Your task to perform on an android device: change the upload size in google photos Image 0: 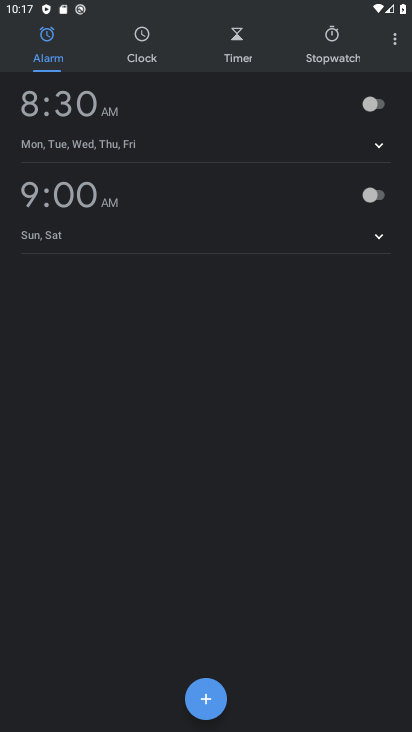
Step 0: press home button
Your task to perform on an android device: change the upload size in google photos Image 1: 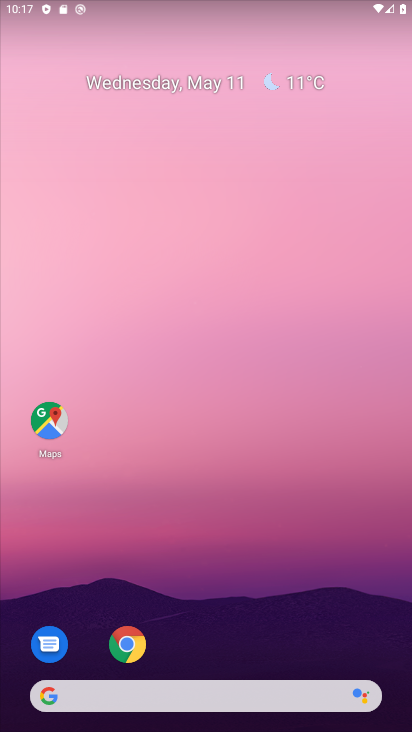
Step 1: drag from (330, 392) to (394, 34)
Your task to perform on an android device: change the upload size in google photos Image 2: 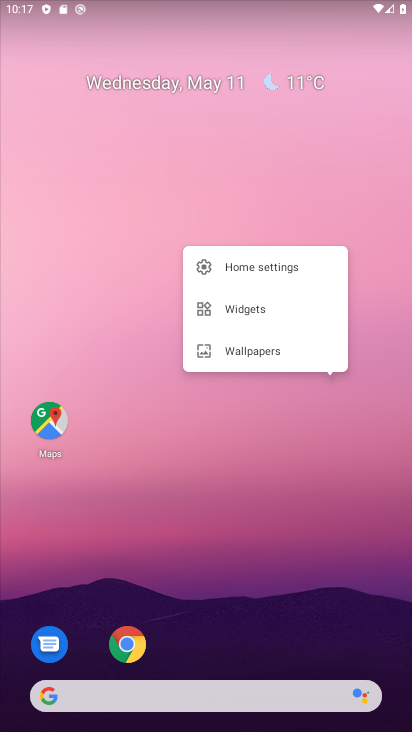
Step 2: drag from (349, 321) to (371, 11)
Your task to perform on an android device: change the upload size in google photos Image 3: 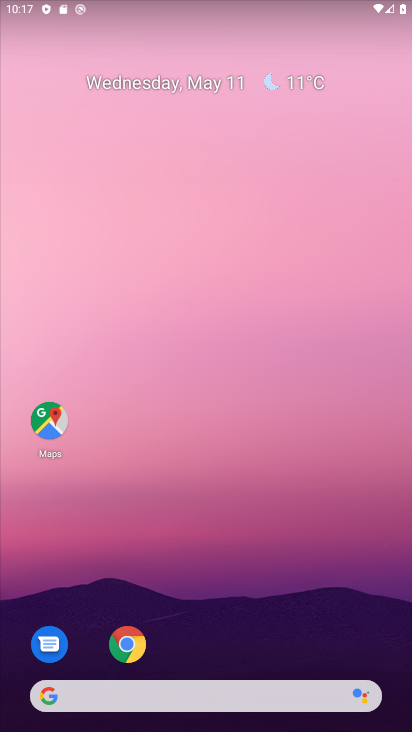
Step 3: drag from (277, 598) to (299, 14)
Your task to perform on an android device: change the upload size in google photos Image 4: 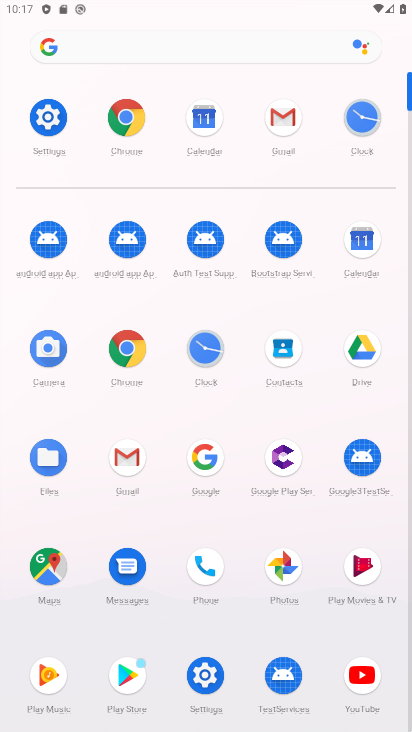
Step 4: click (275, 569)
Your task to perform on an android device: change the upload size in google photos Image 5: 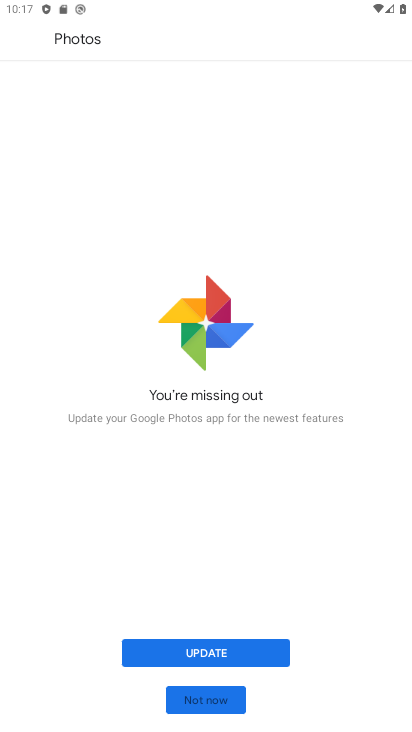
Step 5: click (188, 700)
Your task to perform on an android device: change the upload size in google photos Image 6: 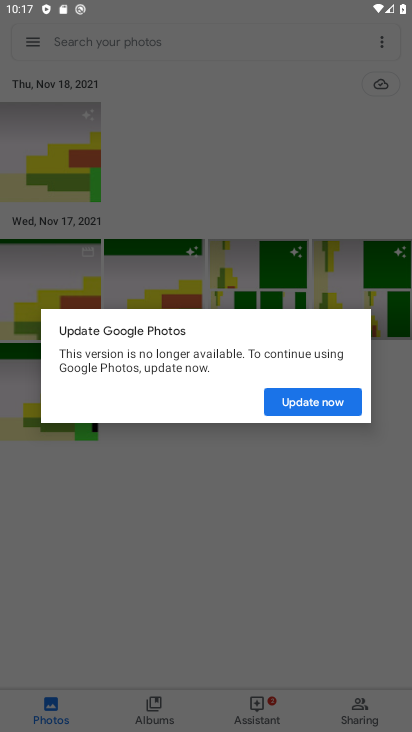
Step 6: click (296, 408)
Your task to perform on an android device: change the upload size in google photos Image 7: 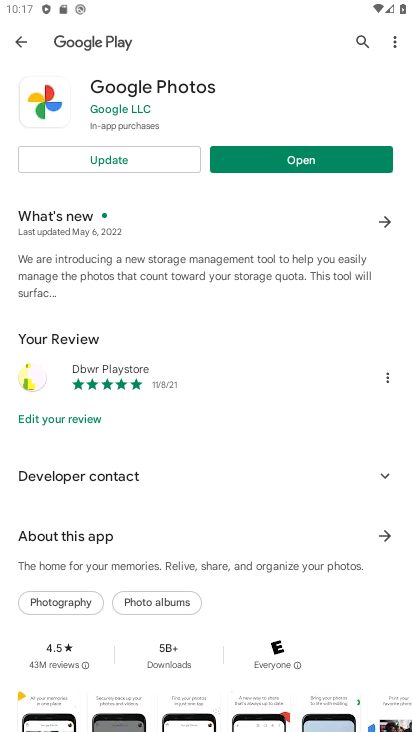
Step 7: click (298, 159)
Your task to perform on an android device: change the upload size in google photos Image 8: 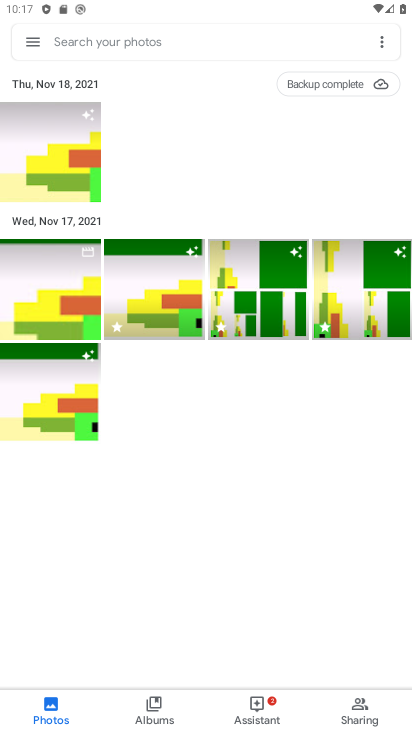
Step 8: click (31, 41)
Your task to perform on an android device: change the upload size in google photos Image 9: 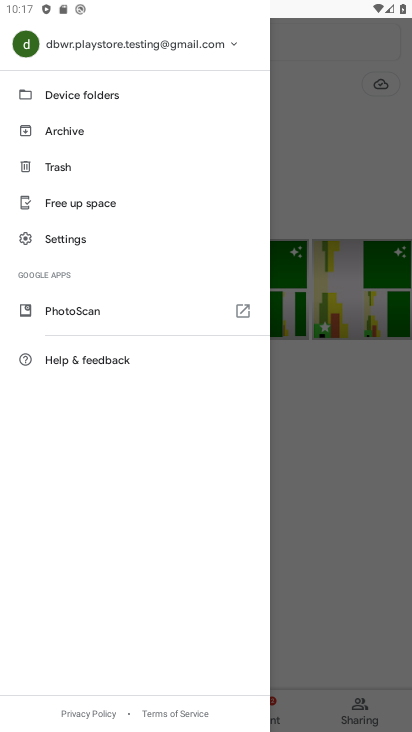
Step 9: click (60, 235)
Your task to perform on an android device: change the upload size in google photos Image 10: 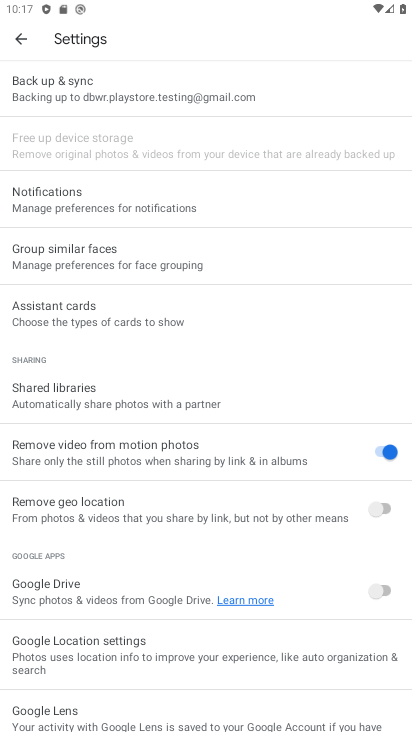
Step 10: click (80, 91)
Your task to perform on an android device: change the upload size in google photos Image 11: 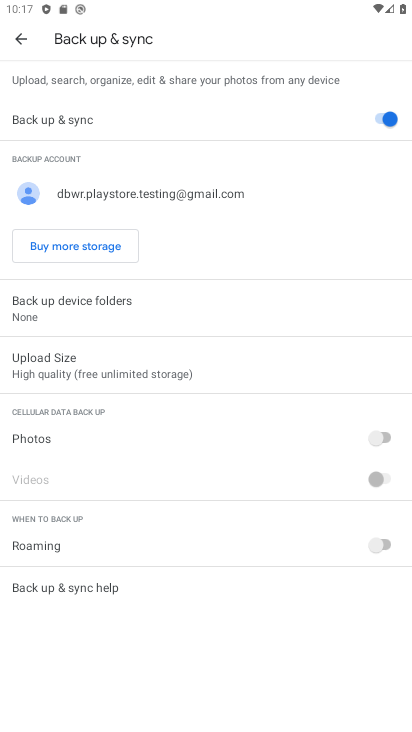
Step 11: click (40, 366)
Your task to perform on an android device: change the upload size in google photos Image 12: 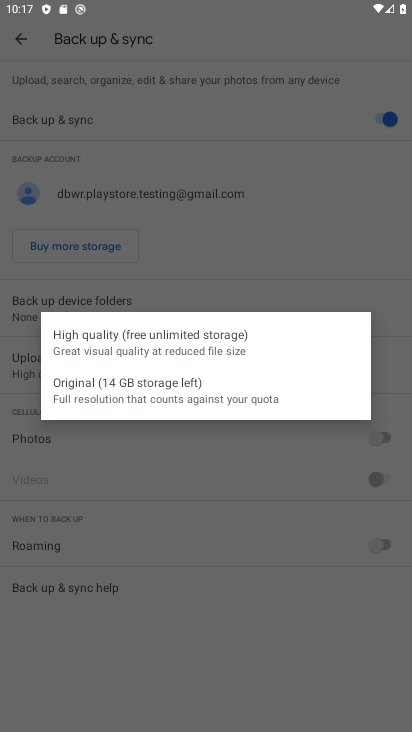
Step 12: click (62, 388)
Your task to perform on an android device: change the upload size in google photos Image 13: 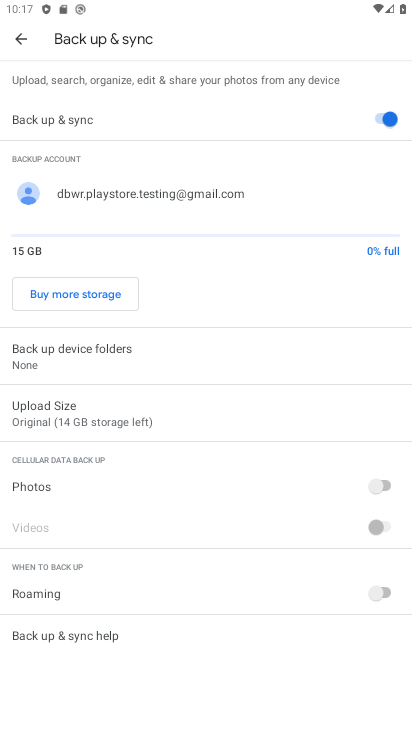
Step 13: task complete